Your task to perform on an android device: open chrome and create a bookmark for the current page Image 0: 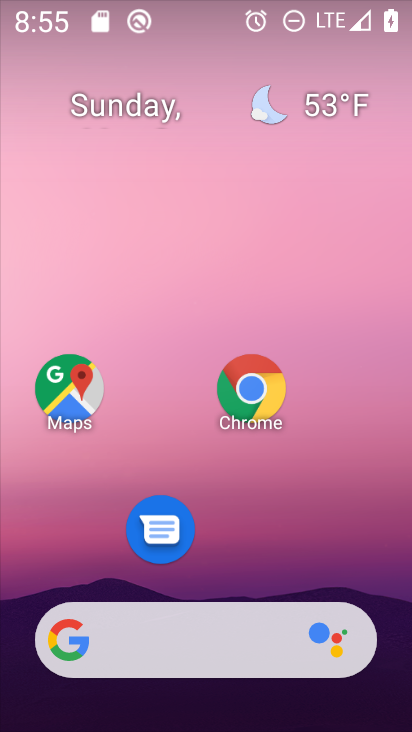
Step 0: click (274, 420)
Your task to perform on an android device: open chrome and create a bookmark for the current page Image 1: 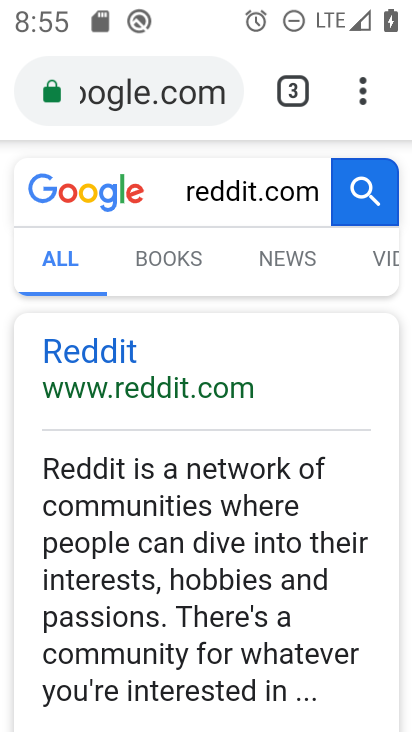
Step 1: click (354, 106)
Your task to perform on an android device: open chrome and create a bookmark for the current page Image 2: 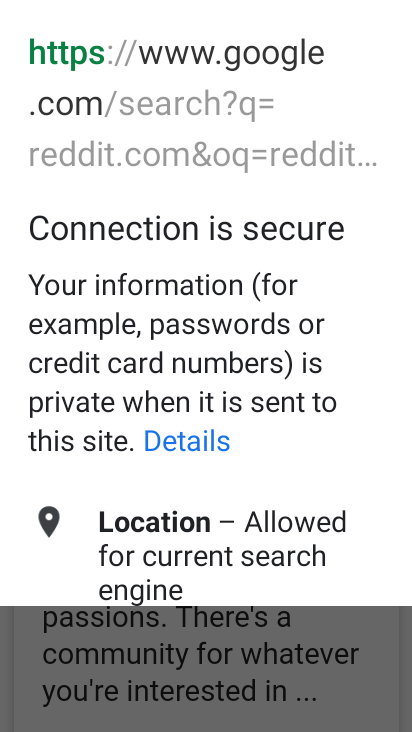
Step 2: click (176, 692)
Your task to perform on an android device: open chrome and create a bookmark for the current page Image 3: 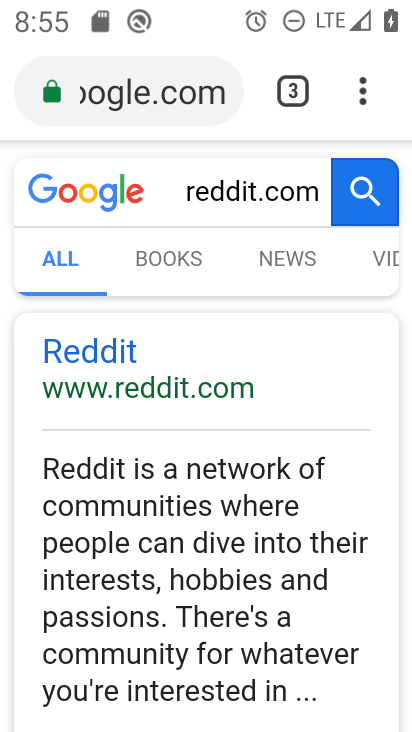
Step 3: click (357, 104)
Your task to perform on an android device: open chrome and create a bookmark for the current page Image 4: 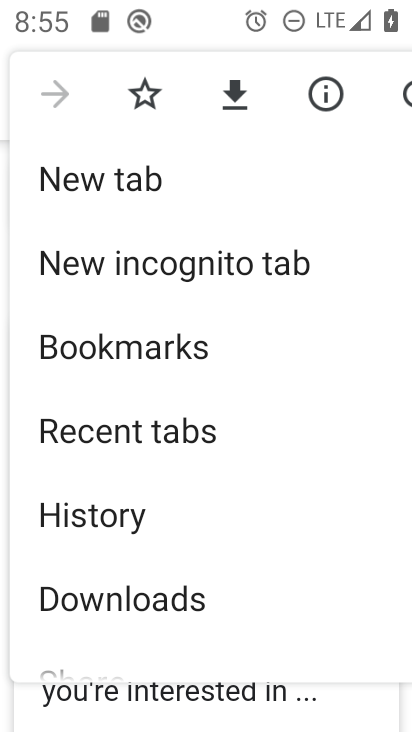
Step 4: click (144, 101)
Your task to perform on an android device: open chrome and create a bookmark for the current page Image 5: 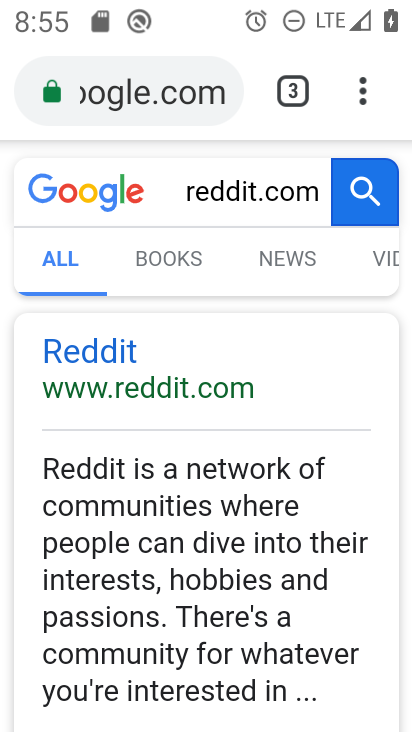
Step 5: task complete